Your task to perform on an android device: Open calendar and show me the second week of next month Image 0: 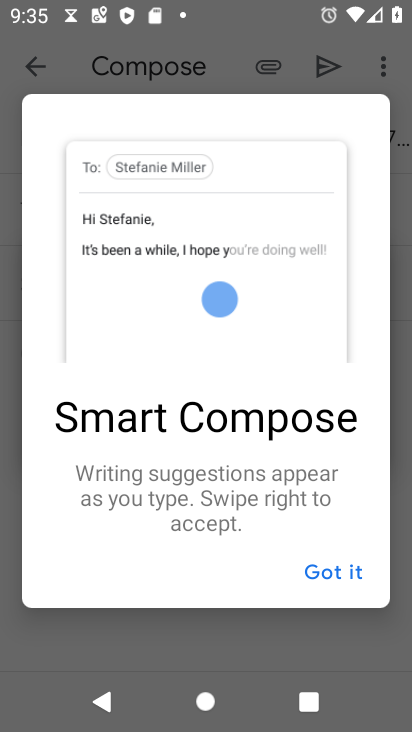
Step 0: press home button
Your task to perform on an android device: Open calendar and show me the second week of next month Image 1: 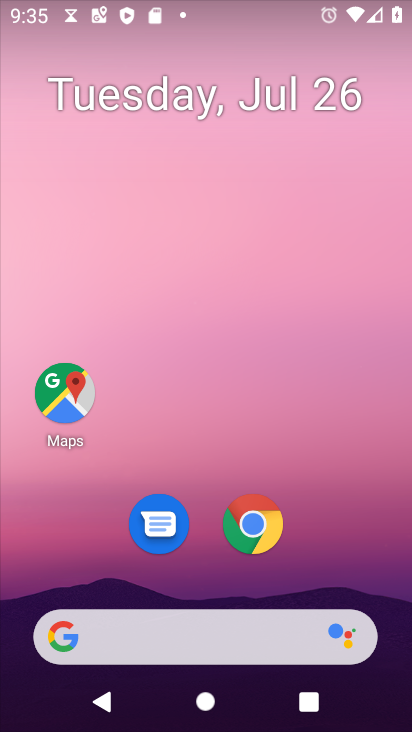
Step 1: drag from (129, 623) to (338, 187)
Your task to perform on an android device: Open calendar and show me the second week of next month Image 2: 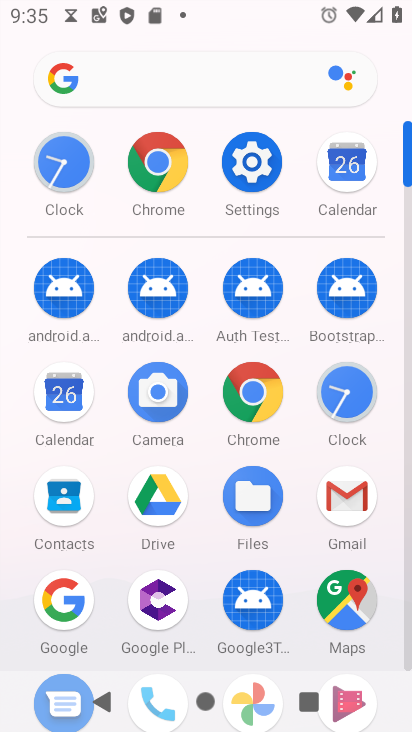
Step 2: click (352, 167)
Your task to perform on an android device: Open calendar and show me the second week of next month Image 3: 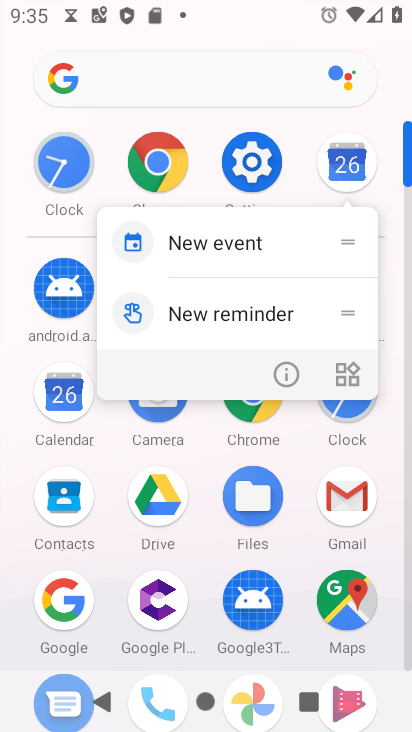
Step 3: click (356, 161)
Your task to perform on an android device: Open calendar and show me the second week of next month Image 4: 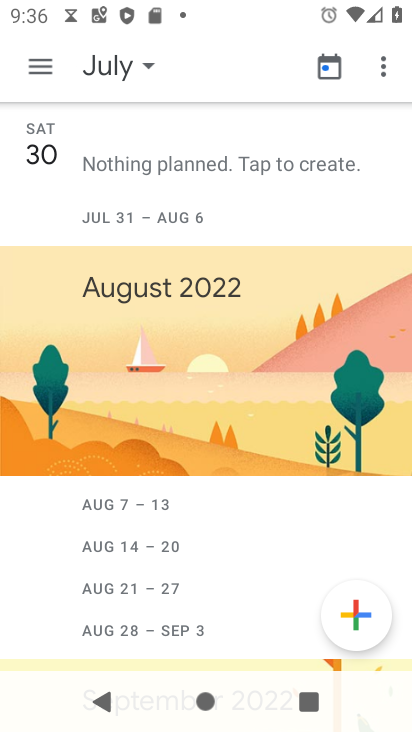
Step 4: click (121, 62)
Your task to perform on an android device: Open calendar and show me the second week of next month Image 5: 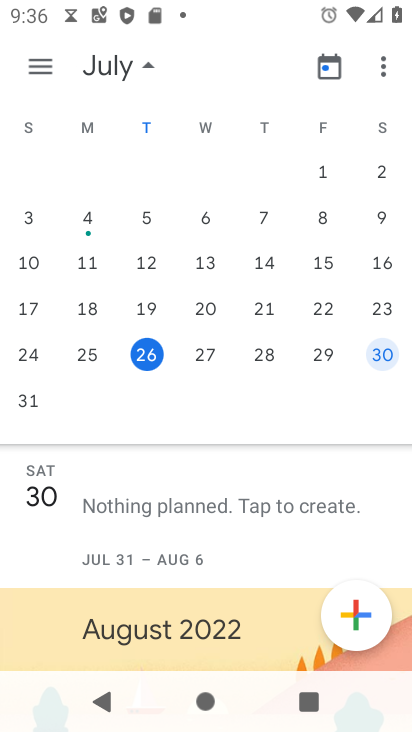
Step 5: drag from (335, 271) to (18, 277)
Your task to perform on an android device: Open calendar and show me the second week of next month Image 6: 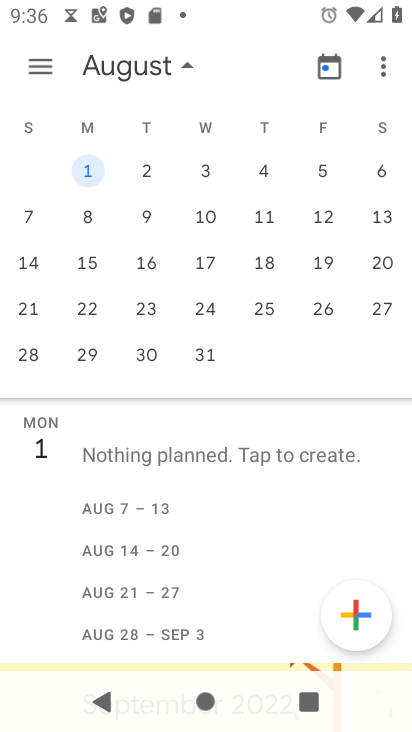
Step 6: click (25, 219)
Your task to perform on an android device: Open calendar and show me the second week of next month Image 7: 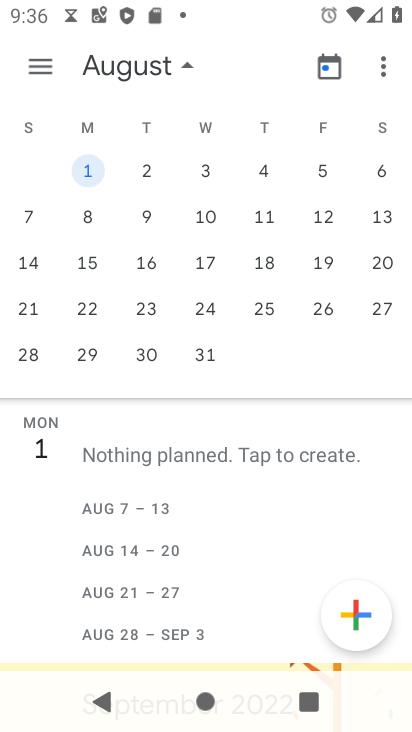
Step 7: click (27, 218)
Your task to perform on an android device: Open calendar and show me the second week of next month Image 8: 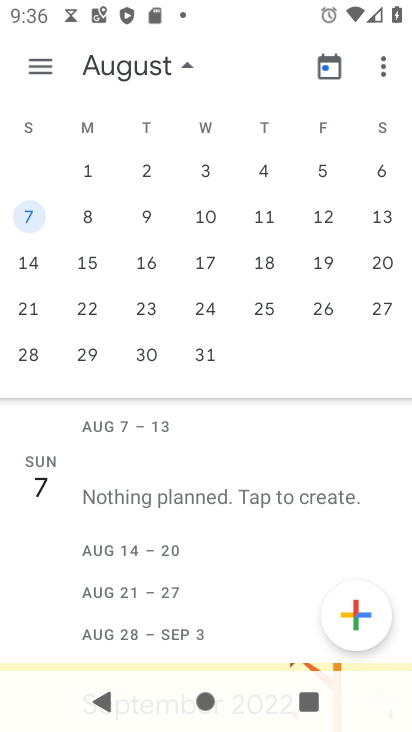
Step 8: click (38, 65)
Your task to perform on an android device: Open calendar and show me the second week of next month Image 9: 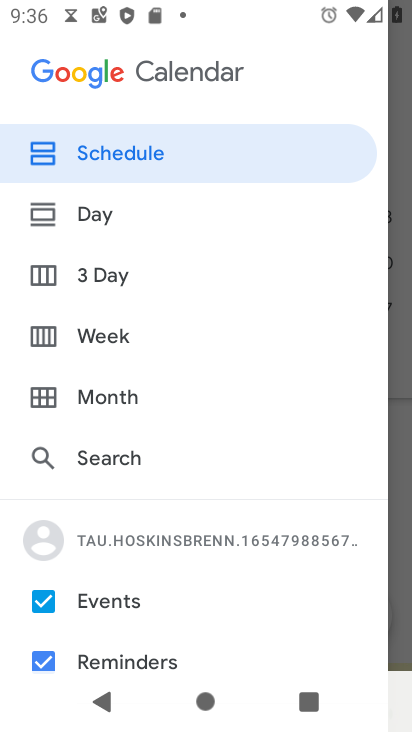
Step 9: click (121, 338)
Your task to perform on an android device: Open calendar and show me the second week of next month Image 10: 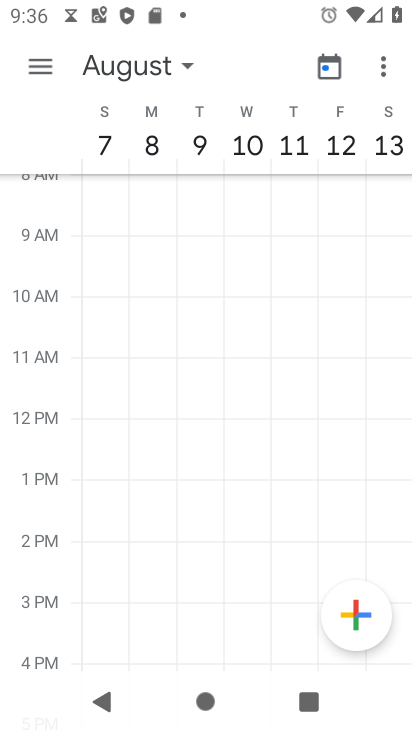
Step 10: task complete